Your task to perform on an android device: set an alarm Image 0: 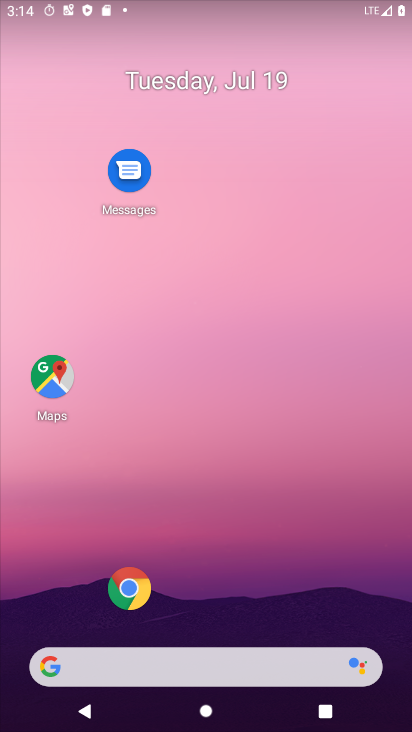
Step 0: drag from (68, 542) to (217, 92)
Your task to perform on an android device: set an alarm Image 1: 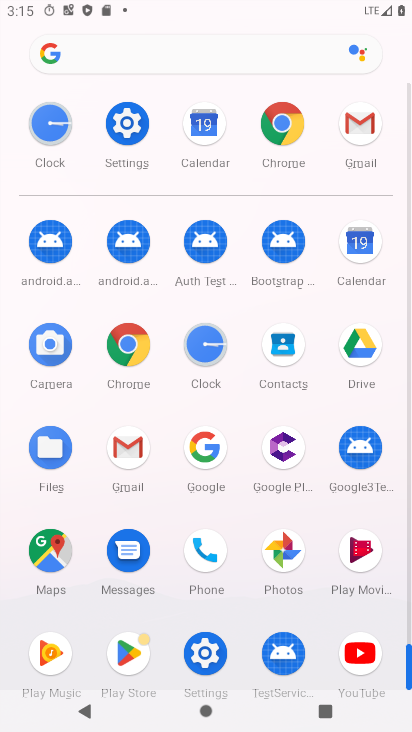
Step 1: click (214, 346)
Your task to perform on an android device: set an alarm Image 2: 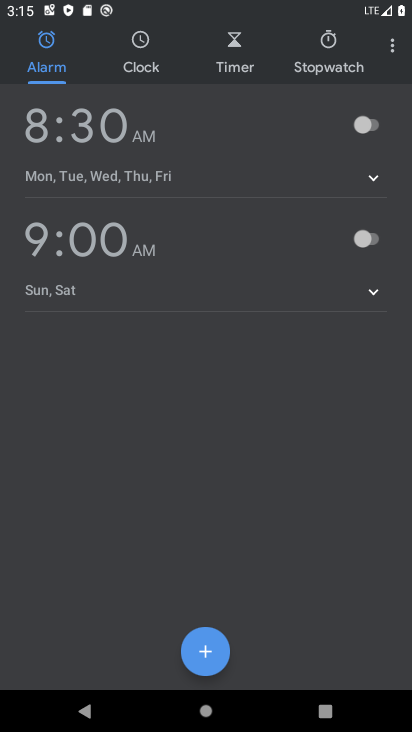
Step 2: click (358, 130)
Your task to perform on an android device: set an alarm Image 3: 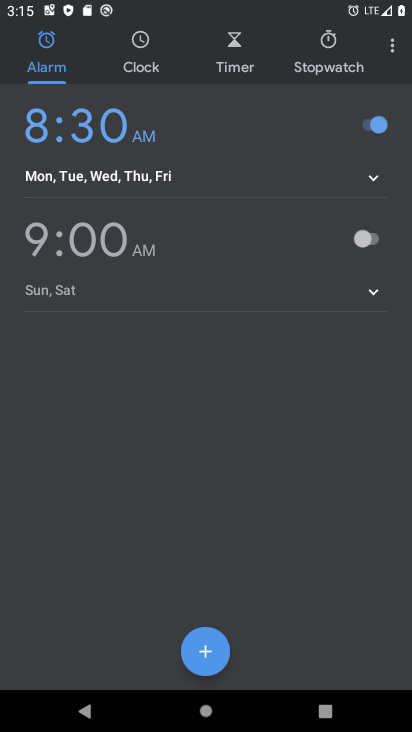
Step 3: task complete